Your task to perform on an android device: Go to Google Image 0: 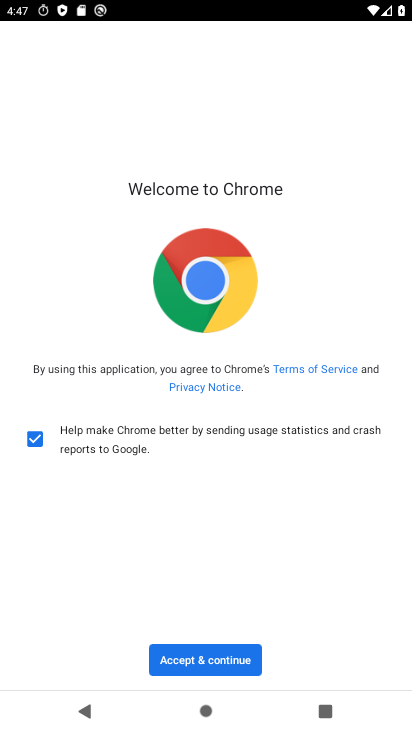
Step 0: press home button
Your task to perform on an android device: Go to Google Image 1: 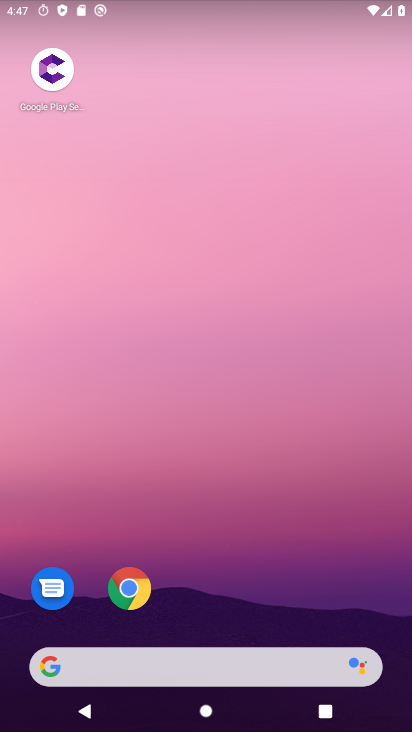
Step 1: drag from (250, 597) to (271, 245)
Your task to perform on an android device: Go to Google Image 2: 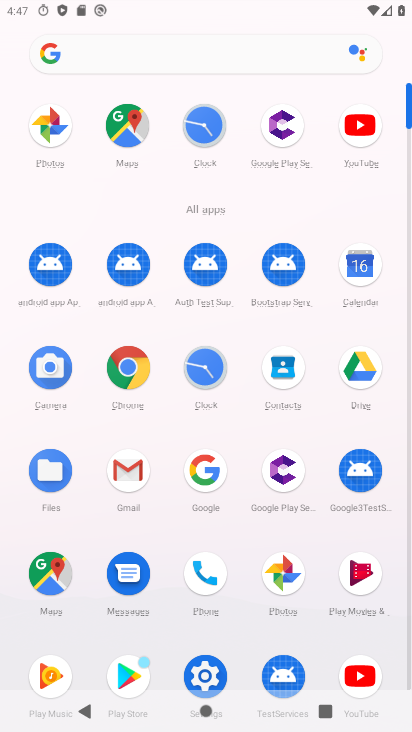
Step 2: click (206, 482)
Your task to perform on an android device: Go to Google Image 3: 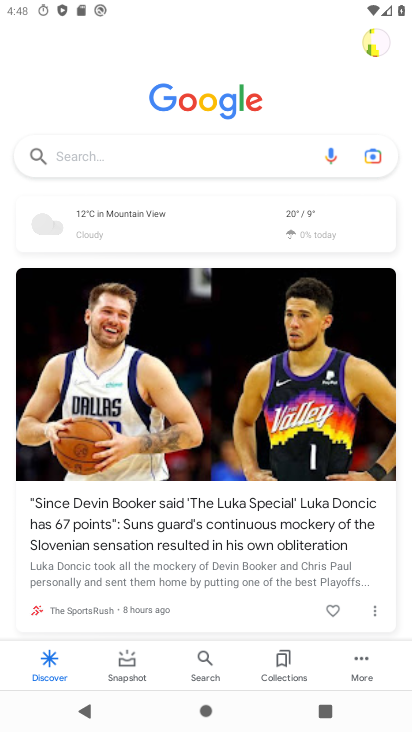
Step 3: task complete